Your task to perform on an android device: turn off location Image 0: 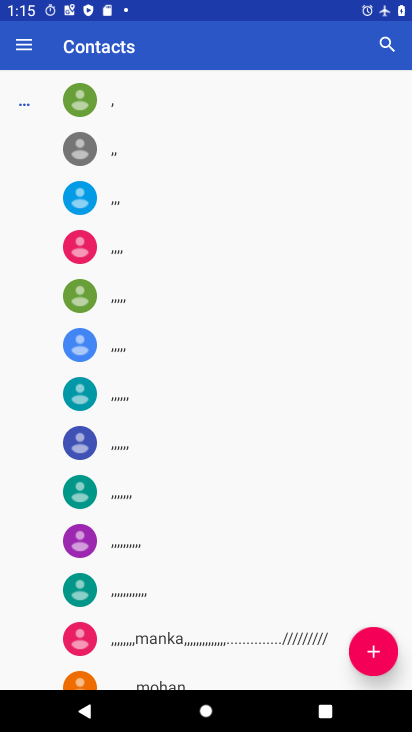
Step 0: press home button
Your task to perform on an android device: turn off location Image 1: 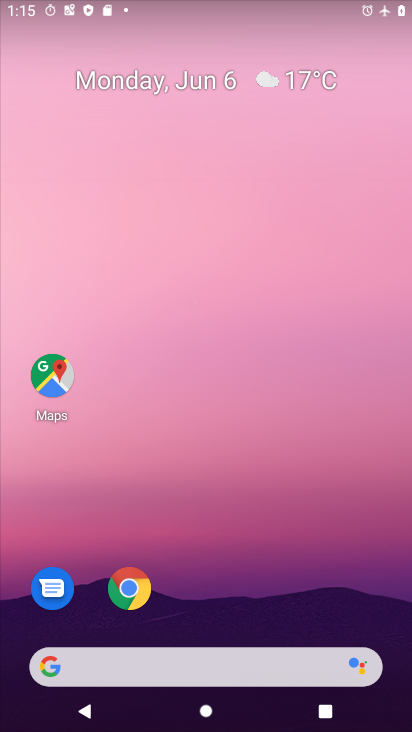
Step 1: drag from (251, 543) to (197, 149)
Your task to perform on an android device: turn off location Image 2: 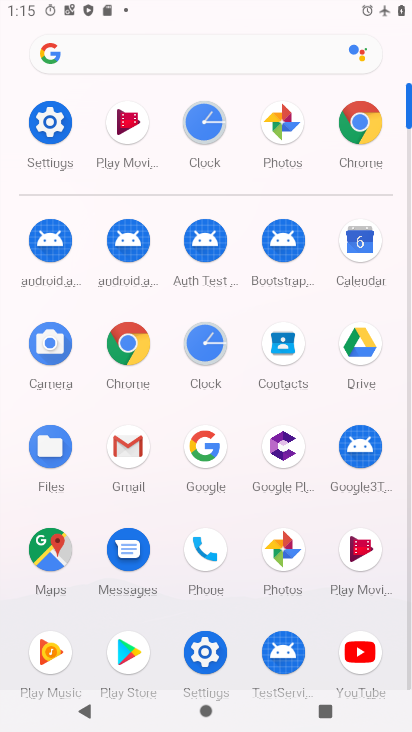
Step 2: click (84, 141)
Your task to perform on an android device: turn off location Image 3: 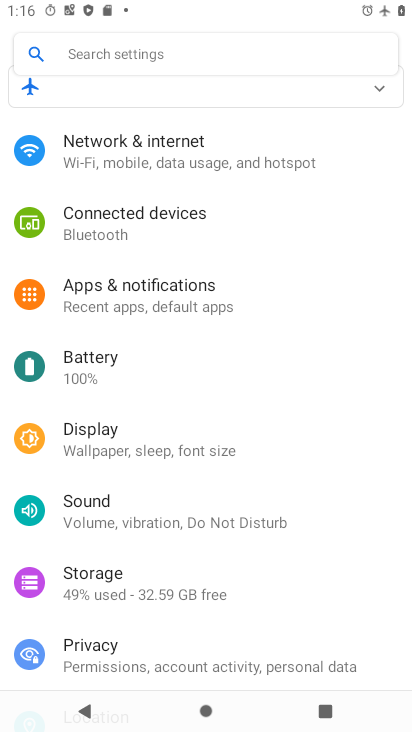
Step 3: drag from (204, 434) to (232, 132)
Your task to perform on an android device: turn off location Image 4: 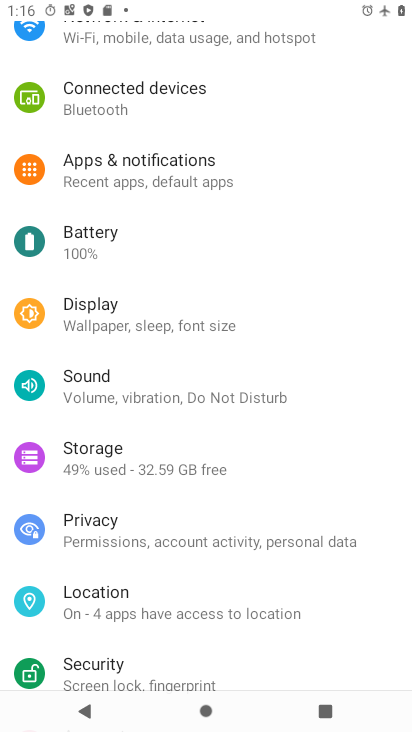
Step 4: click (96, 605)
Your task to perform on an android device: turn off location Image 5: 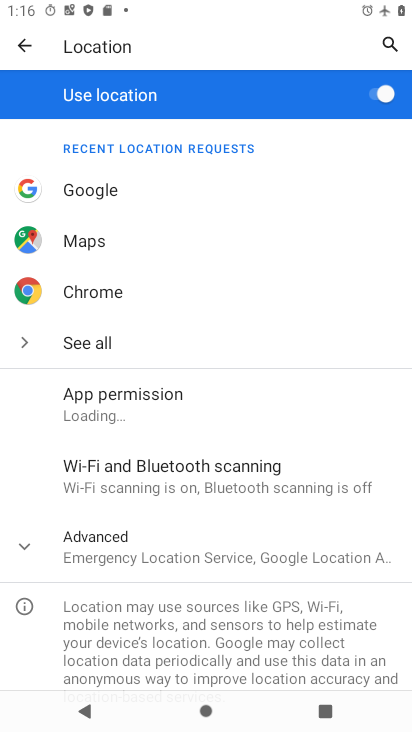
Step 5: click (384, 89)
Your task to perform on an android device: turn off location Image 6: 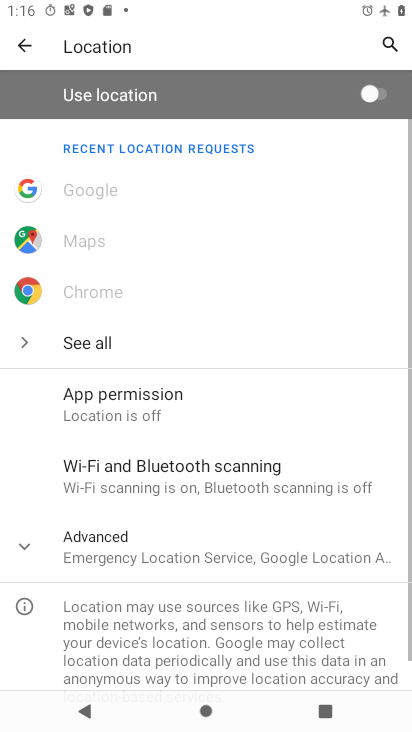
Step 6: task complete